Your task to perform on an android device: visit the assistant section in the google photos Image 0: 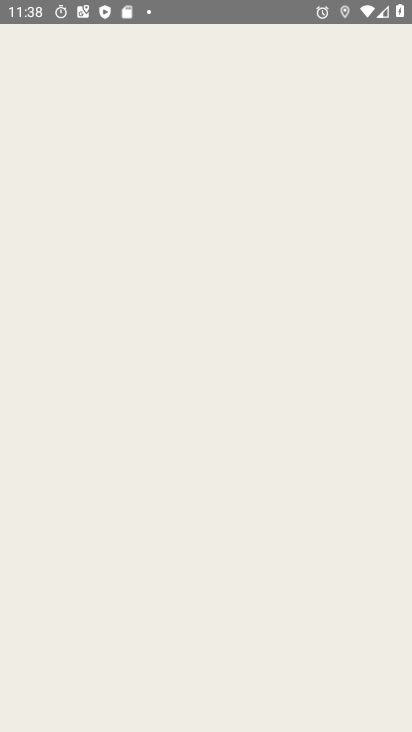
Step 0: drag from (242, 602) to (235, 89)
Your task to perform on an android device: visit the assistant section in the google photos Image 1: 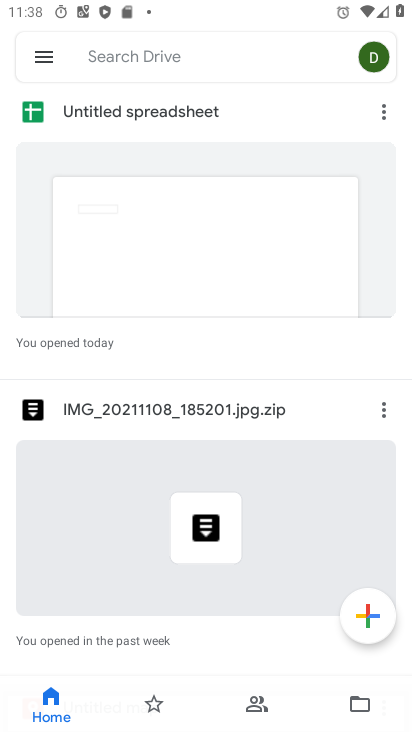
Step 1: press home button
Your task to perform on an android device: visit the assistant section in the google photos Image 2: 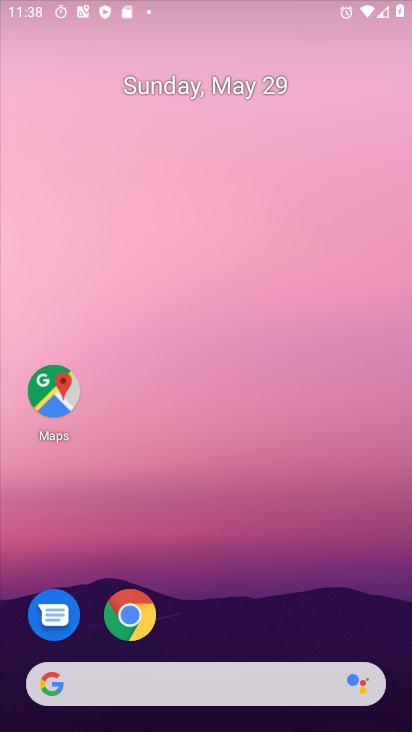
Step 2: drag from (237, 613) to (245, 58)
Your task to perform on an android device: visit the assistant section in the google photos Image 3: 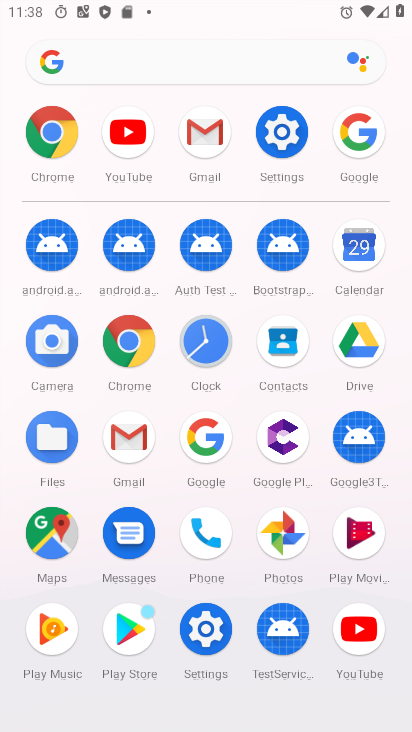
Step 3: click (282, 538)
Your task to perform on an android device: visit the assistant section in the google photos Image 4: 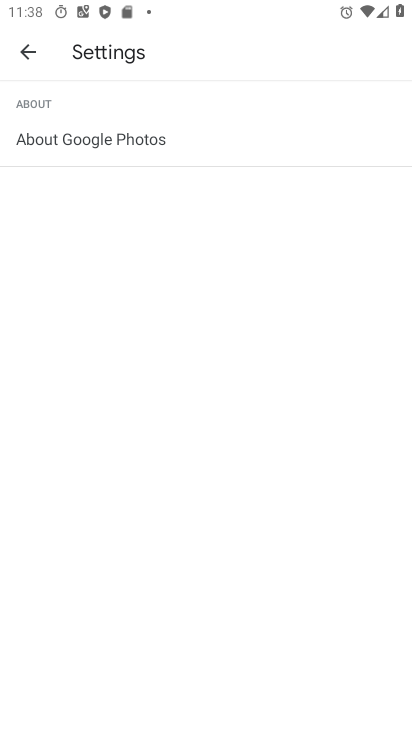
Step 4: press back button
Your task to perform on an android device: visit the assistant section in the google photos Image 5: 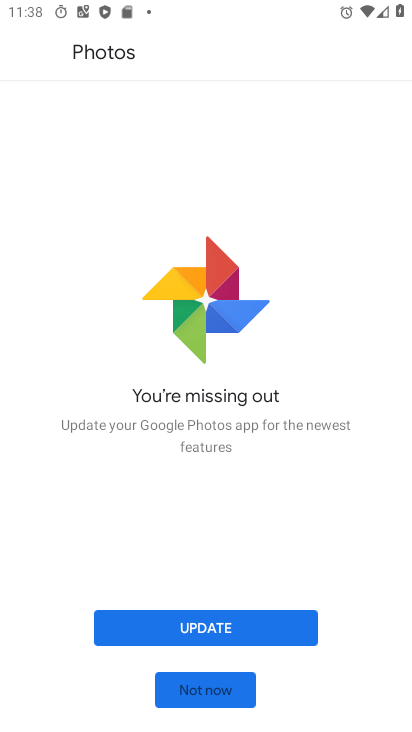
Step 5: drag from (342, 295) to (134, 293)
Your task to perform on an android device: visit the assistant section in the google photos Image 6: 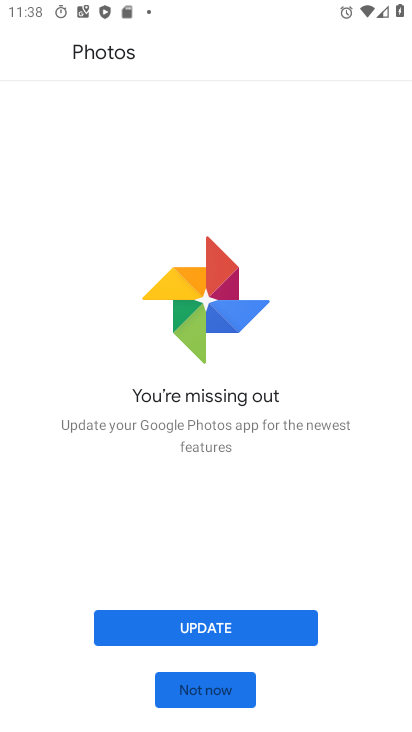
Step 6: click (188, 642)
Your task to perform on an android device: visit the assistant section in the google photos Image 7: 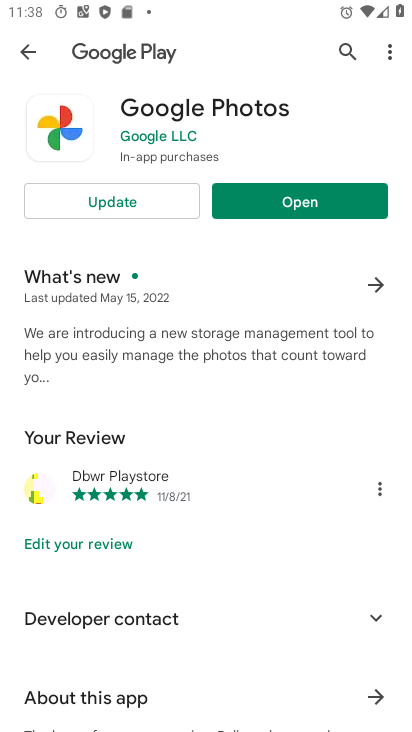
Step 7: click (132, 205)
Your task to perform on an android device: visit the assistant section in the google photos Image 8: 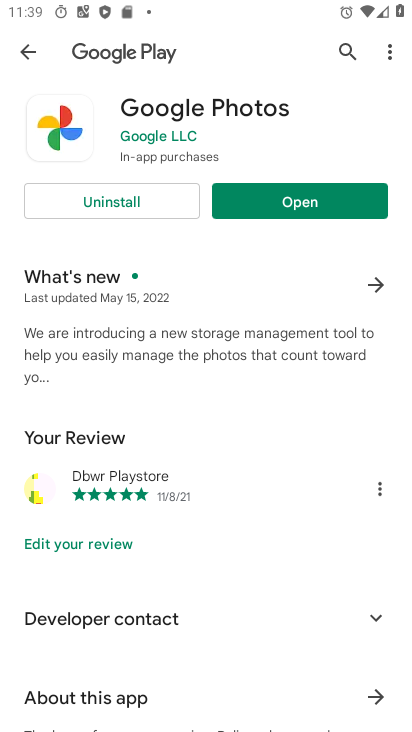
Step 8: click (292, 199)
Your task to perform on an android device: visit the assistant section in the google photos Image 9: 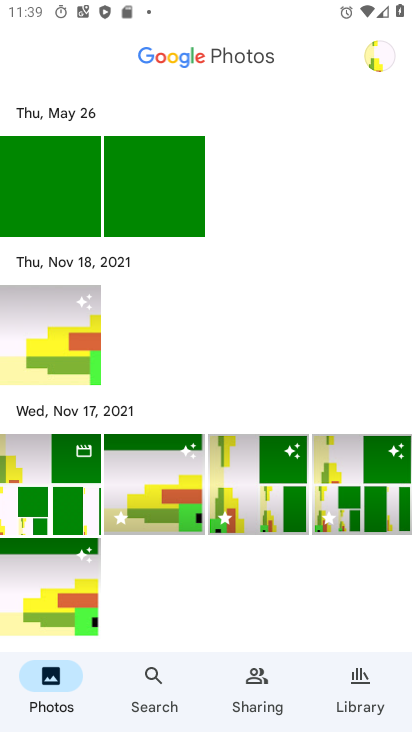
Step 9: task complete